Your task to perform on an android device: find which apps use the phone's location Image 0: 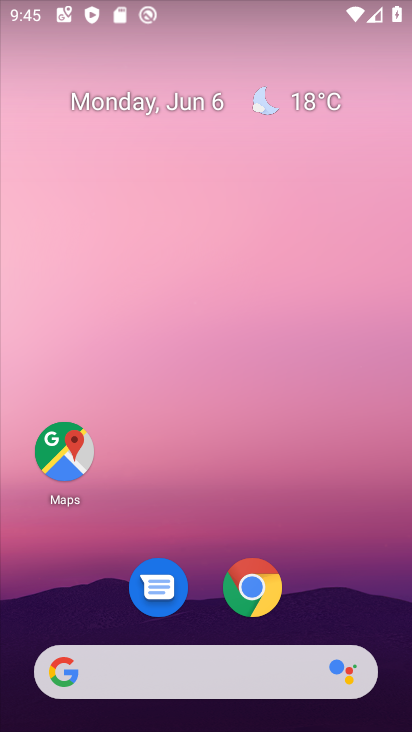
Step 0: drag from (356, 566) to (302, 83)
Your task to perform on an android device: find which apps use the phone's location Image 1: 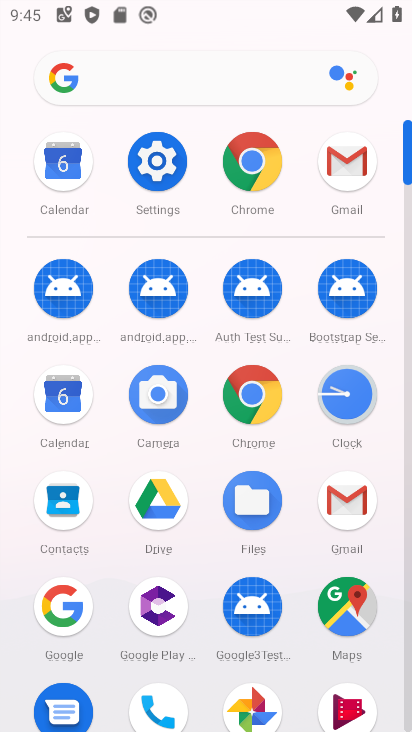
Step 1: click (173, 160)
Your task to perform on an android device: find which apps use the phone's location Image 2: 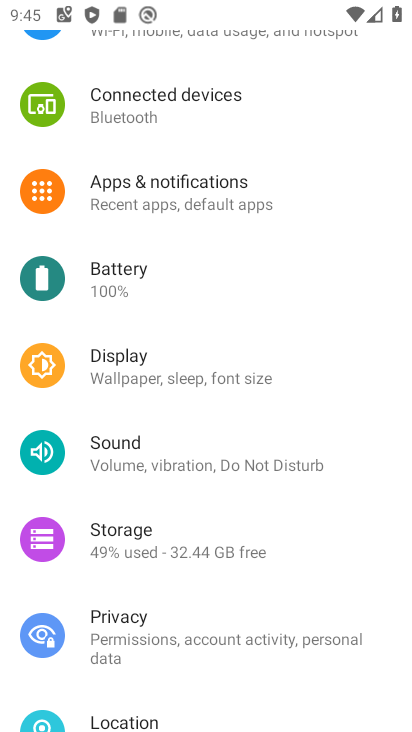
Step 2: click (138, 714)
Your task to perform on an android device: find which apps use the phone's location Image 3: 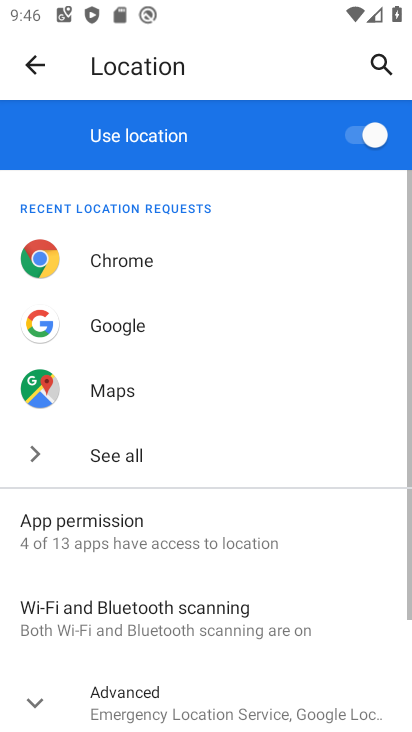
Step 3: click (130, 523)
Your task to perform on an android device: find which apps use the phone's location Image 4: 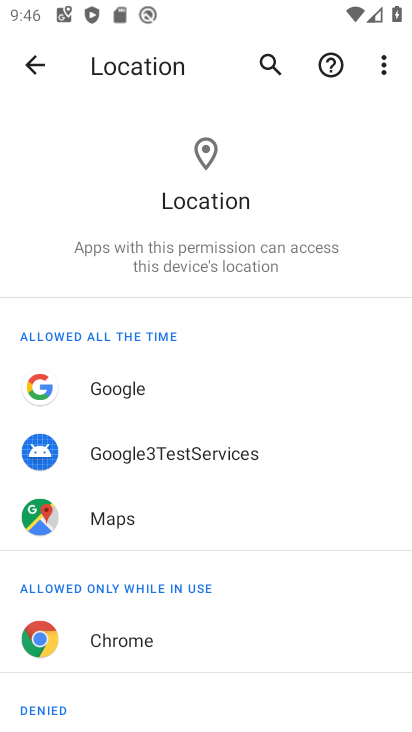
Step 4: task complete